Your task to perform on an android device: Go to calendar. Show me events next week Image 0: 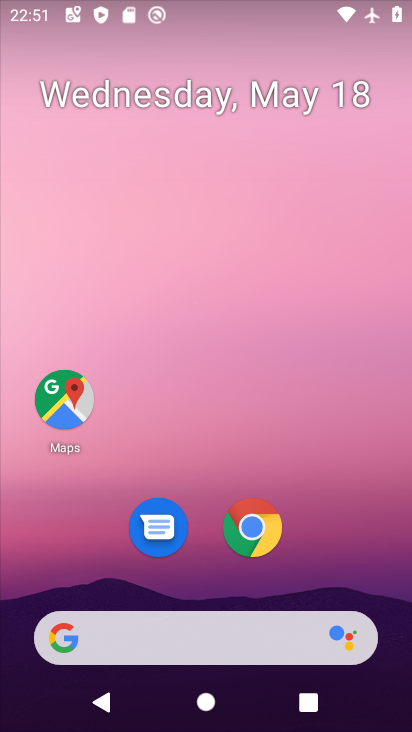
Step 0: drag from (340, 559) to (304, 29)
Your task to perform on an android device: Go to calendar. Show me events next week Image 1: 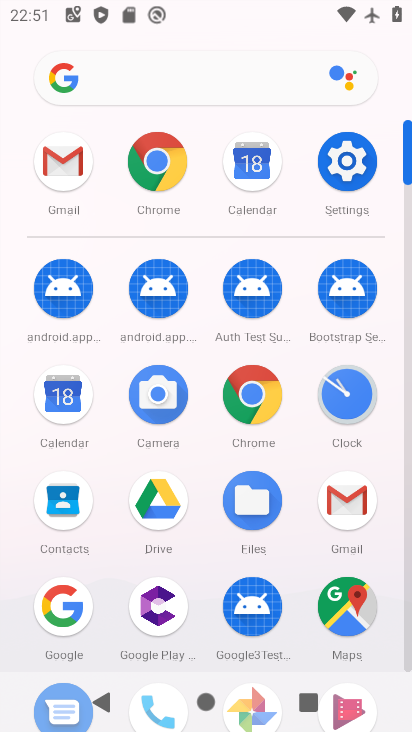
Step 1: click (54, 402)
Your task to perform on an android device: Go to calendar. Show me events next week Image 2: 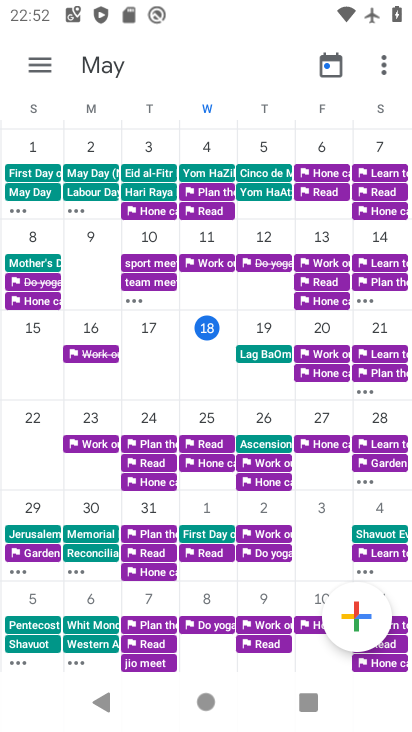
Step 2: task complete